Your task to perform on an android device: Where can I buy a nice beach tote? Image 0: 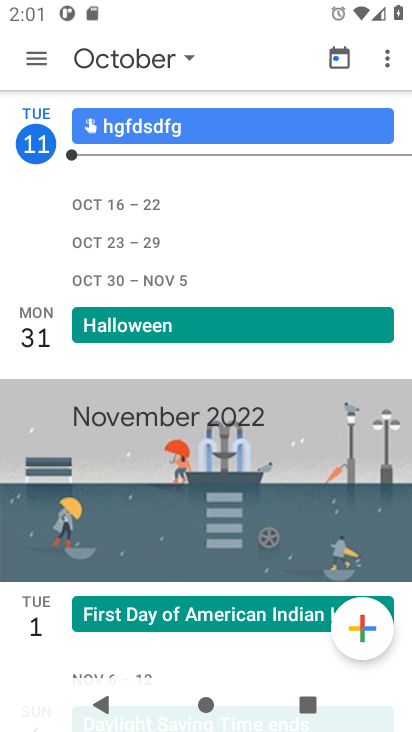
Step 0: press home button
Your task to perform on an android device: Where can I buy a nice beach tote? Image 1: 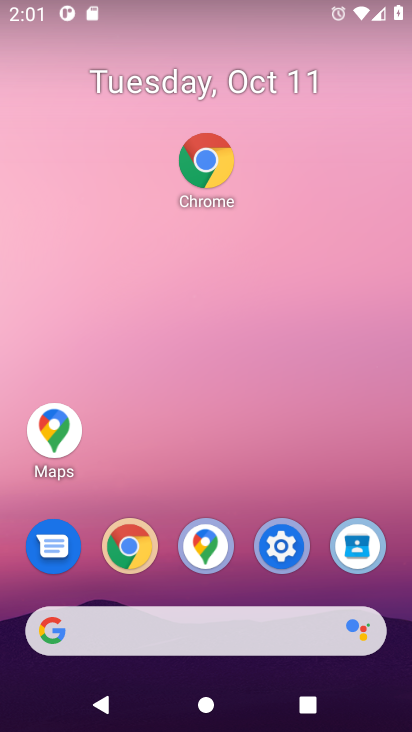
Step 1: click (126, 548)
Your task to perform on an android device: Where can I buy a nice beach tote? Image 2: 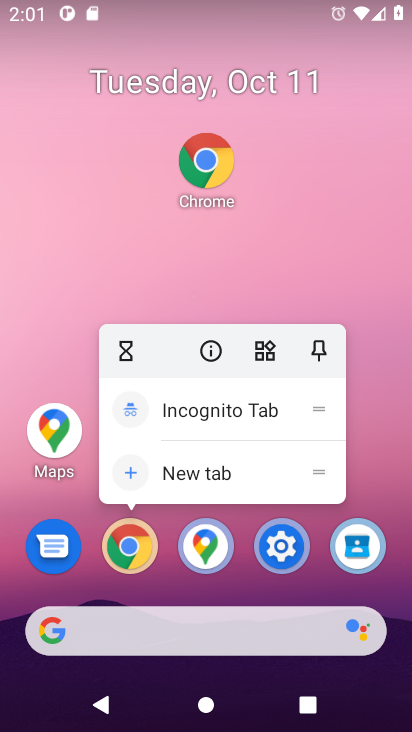
Step 2: click (127, 555)
Your task to perform on an android device: Where can I buy a nice beach tote? Image 3: 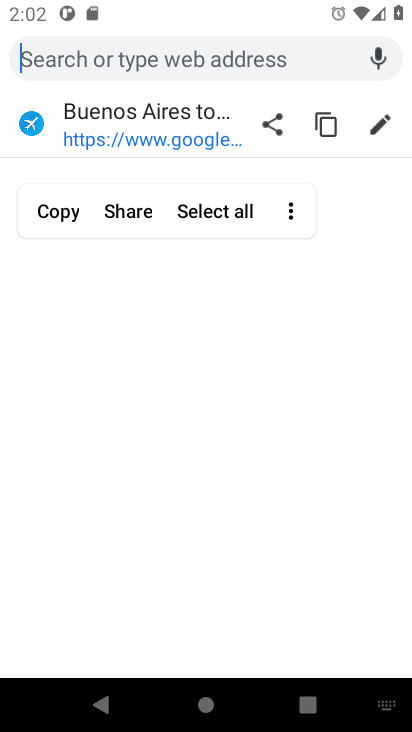
Step 3: type "nice beach tote"
Your task to perform on an android device: Where can I buy a nice beach tote? Image 4: 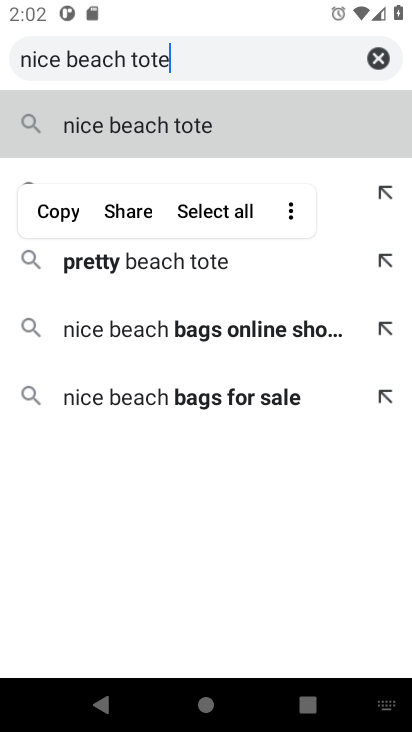
Step 4: type ""
Your task to perform on an android device: Where can I buy a nice beach tote? Image 5: 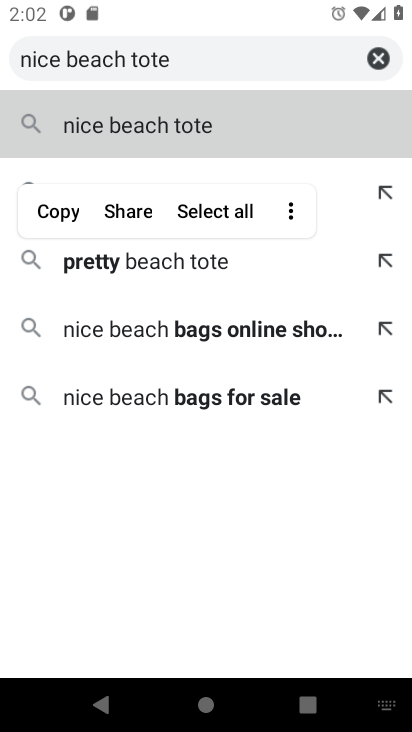
Step 5: press enter
Your task to perform on an android device: Where can I buy a nice beach tote? Image 6: 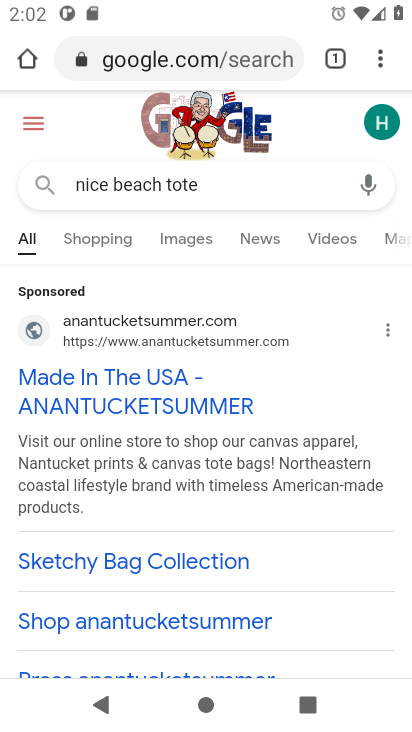
Step 6: click (101, 244)
Your task to perform on an android device: Where can I buy a nice beach tote? Image 7: 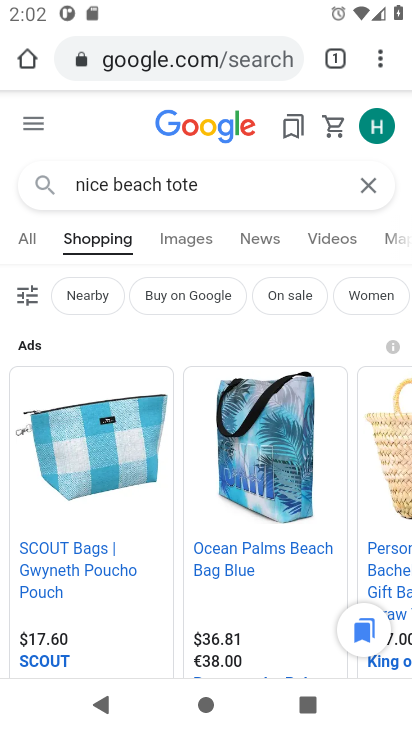
Step 7: task complete